Your task to perform on an android device: search for starred emails in the gmail app Image 0: 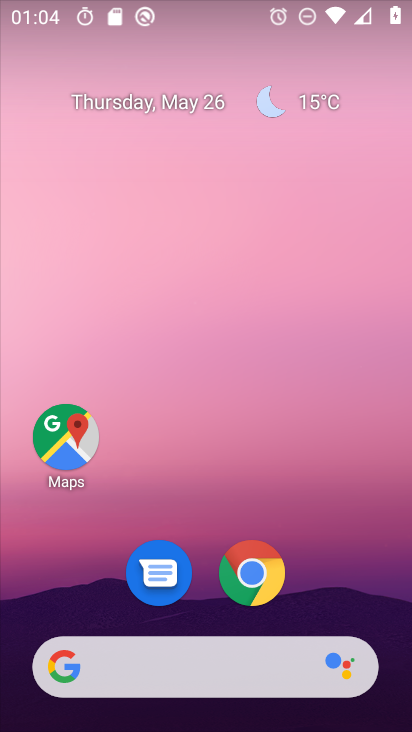
Step 0: drag from (337, 621) to (350, 23)
Your task to perform on an android device: search for starred emails in the gmail app Image 1: 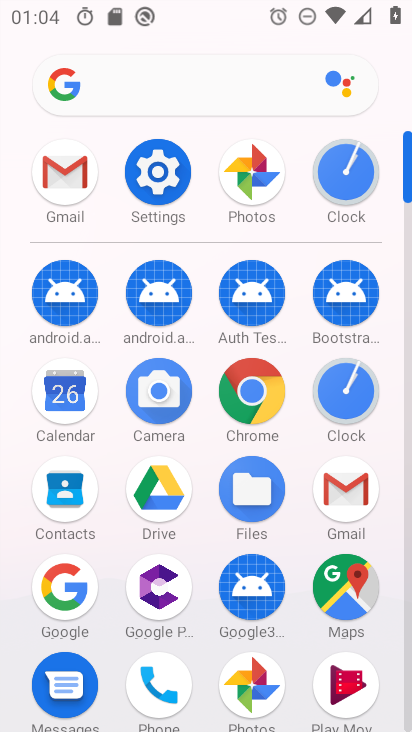
Step 1: click (57, 181)
Your task to perform on an android device: search for starred emails in the gmail app Image 2: 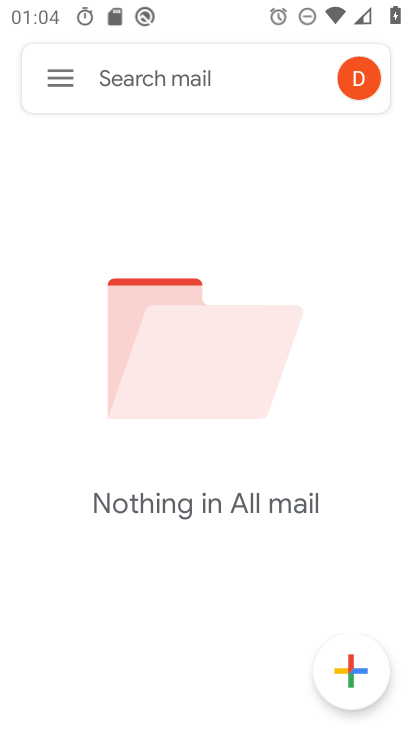
Step 2: click (64, 79)
Your task to perform on an android device: search for starred emails in the gmail app Image 3: 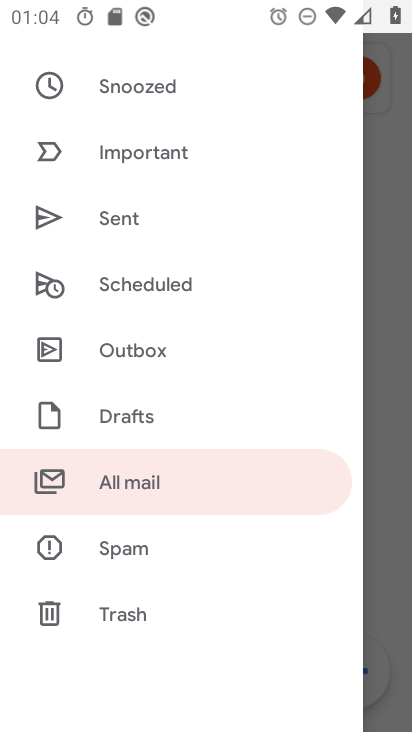
Step 3: drag from (200, 203) to (192, 568)
Your task to perform on an android device: search for starred emails in the gmail app Image 4: 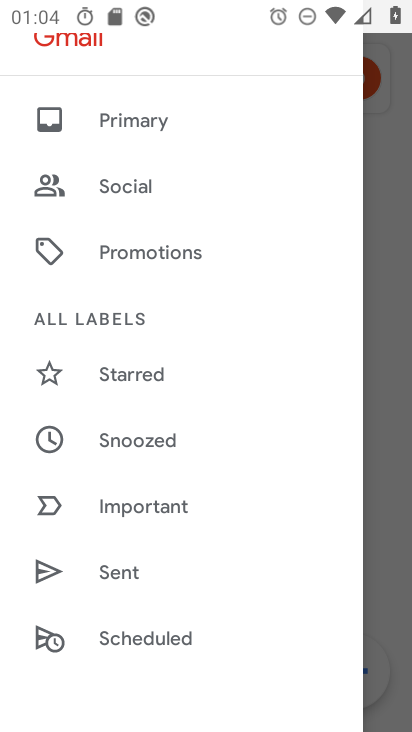
Step 4: click (152, 378)
Your task to perform on an android device: search for starred emails in the gmail app Image 5: 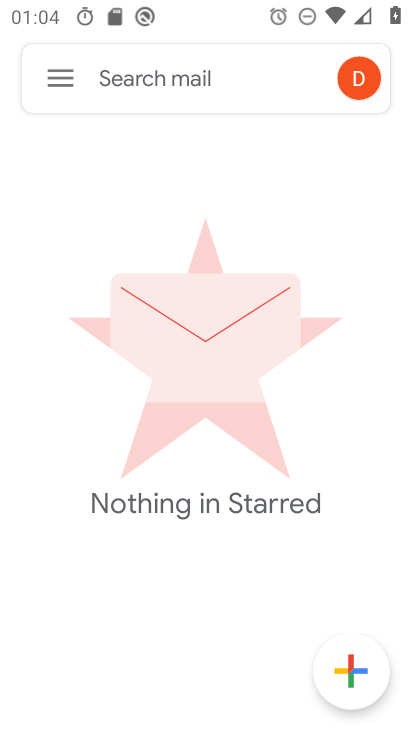
Step 5: task complete